Your task to perform on an android device: Find coffee shops on Maps Image 0: 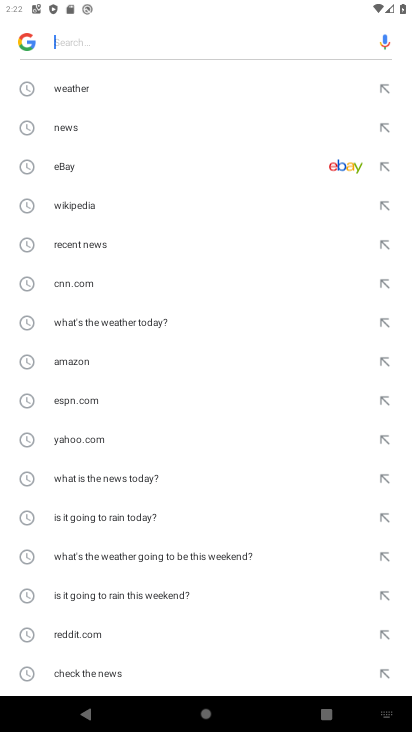
Step 0: press back button
Your task to perform on an android device: Find coffee shops on Maps Image 1: 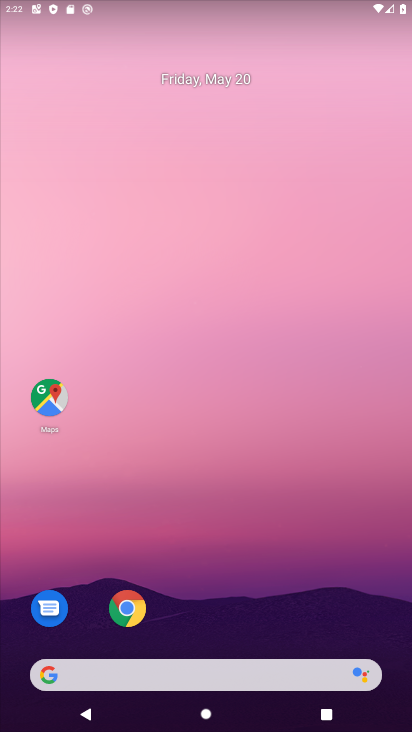
Step 1: click (49, 391)
Your task to perform on an android device: Find coffee shops on Maps Image 2: 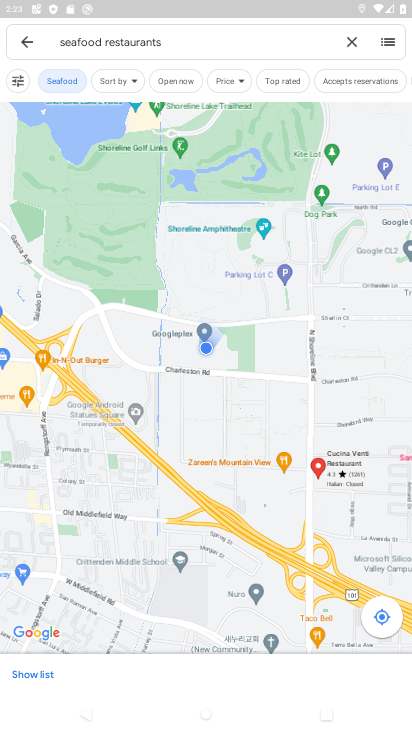
Step 2: click (156, 44)
Your task to perform on an android device: Find coffee shops on Maps Image 3: 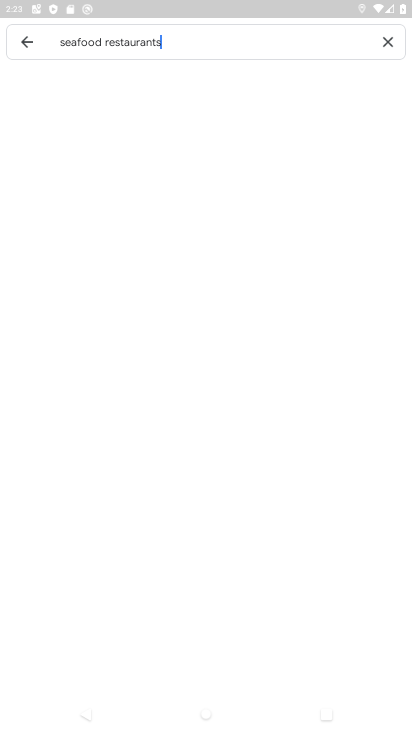
Step 3: click (341, 42)
Your task to perform on an android device: Find coffee shops on Maps Image 4: 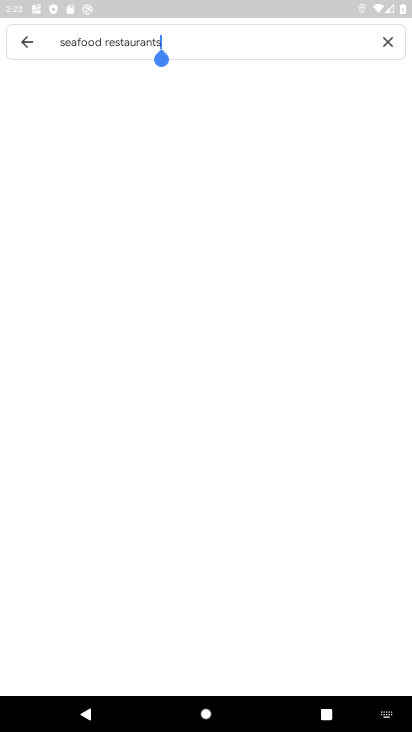
Step 4: click (379, 39)
Your task to perform on an android device: Find coffee shops on Maps Image 5: 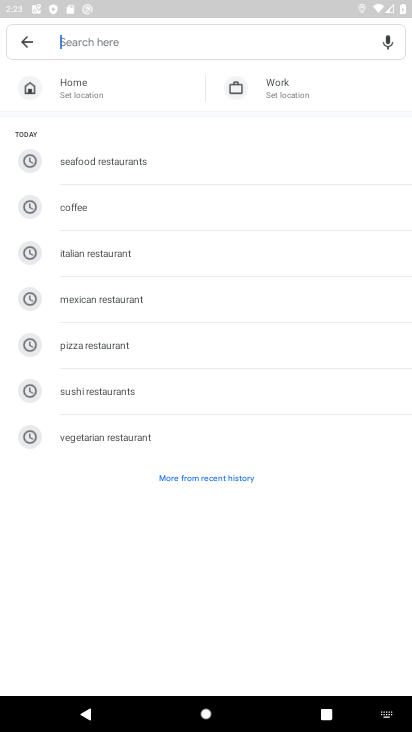
Step 5: click (77, 211)
Your task to perform on an android device: Find coffee shops on Maps Image 6: 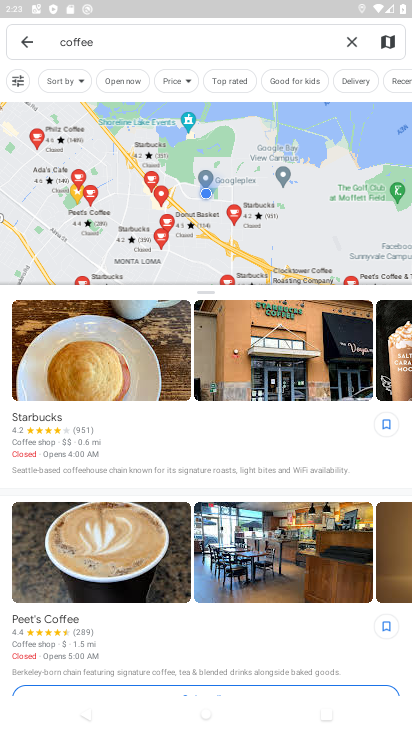
Step 6: task complete